Your task to perform on an android device: Open the calendar app, open the side menu, and click the "Day" option Image 0: 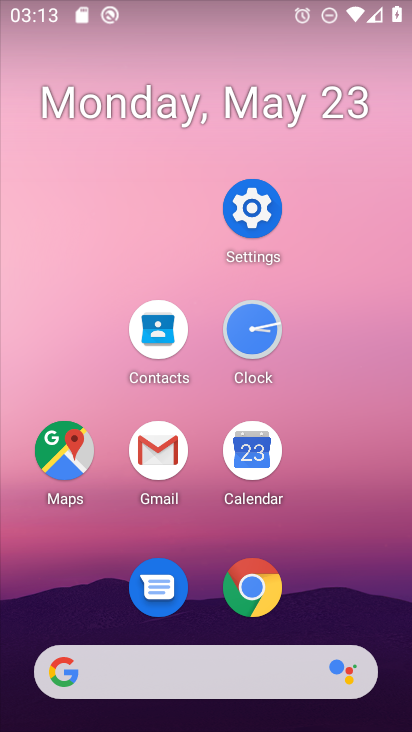
Step 0: click (249, 460)
Your task to perform on an android device: Open the calendar app, open the side menu, and click the "Day" option Image 1: 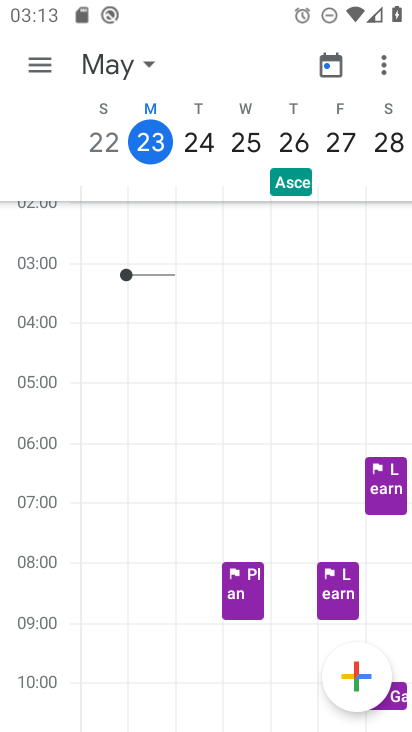
Step 1: click (43, 51)
Your task to perform on an android device: Open the calendar app, open the side menu, and click the "Day" option Image 2: 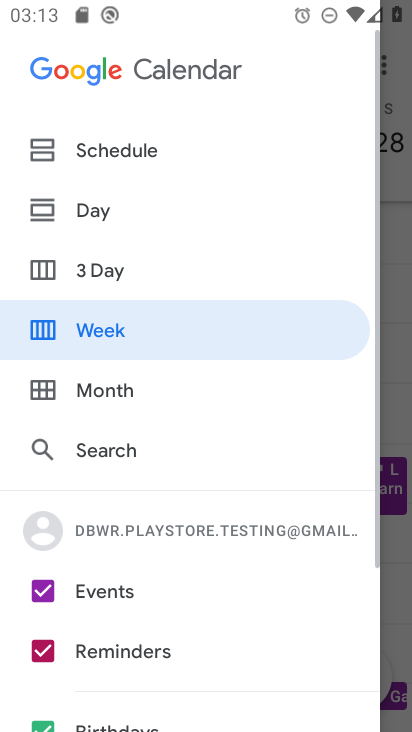
Step 2: click (107, 207)
Your task to perform on an android device: Open the calendar app, open the side menu, and click the "Day" option Image 3: 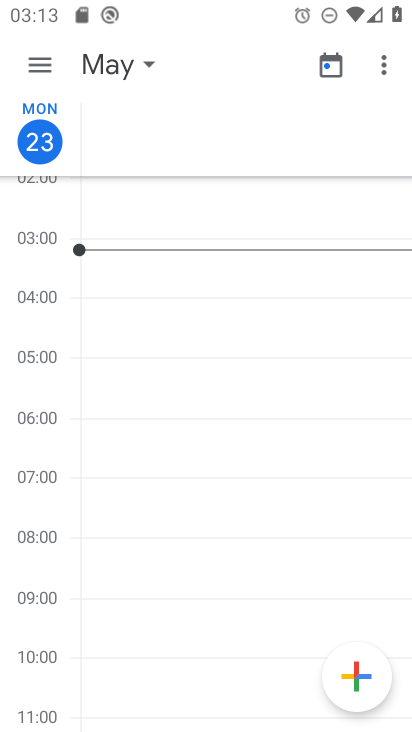
Step 3: task complete